Your task to perform on an android device: What's the weather going to be tomorrow? Image 0: 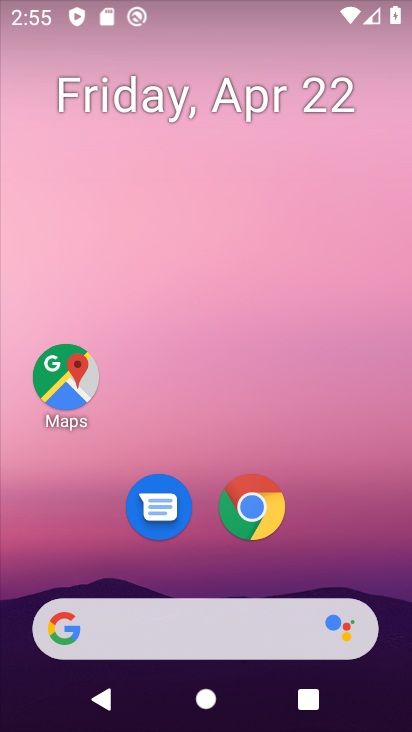
Step 0: click (277, 526)
Your task to perform on an android device: What's the weather going to be tomorrow? Image 1: 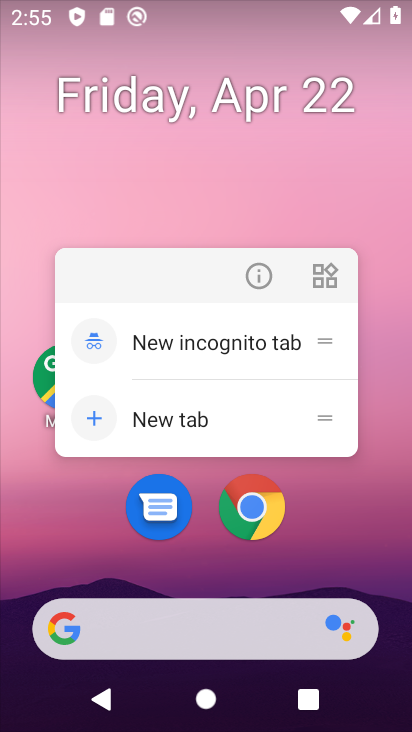
Step 1: click (252, 515)
Your task to perform on an android device: What's the weather going to be tomorrow? Image 2: 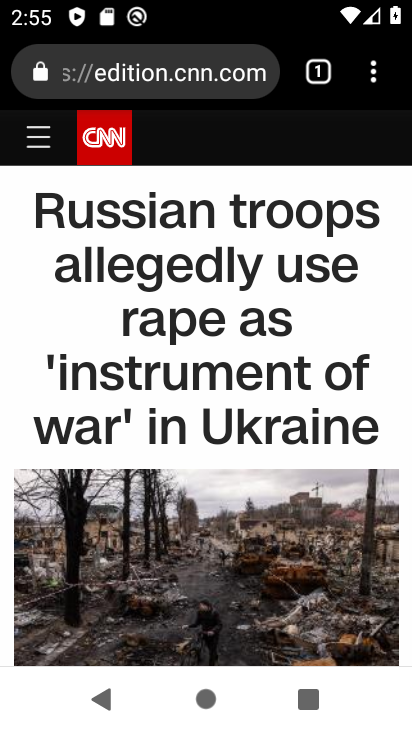
Step 2: click (133, 78)
Your task to perform on an android device: What's the weather going to be tomorrow? Image 3: 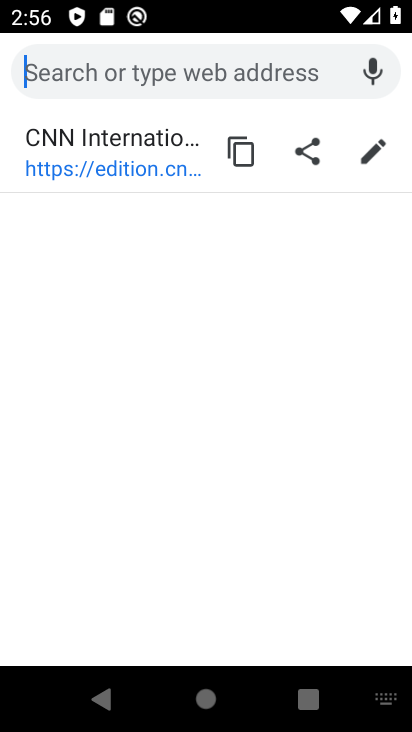
Step 3: type "whats the weather going to be tomorrow?"
Your task to perform on an android device: What's the weather going to be tomorrow? Image 4: 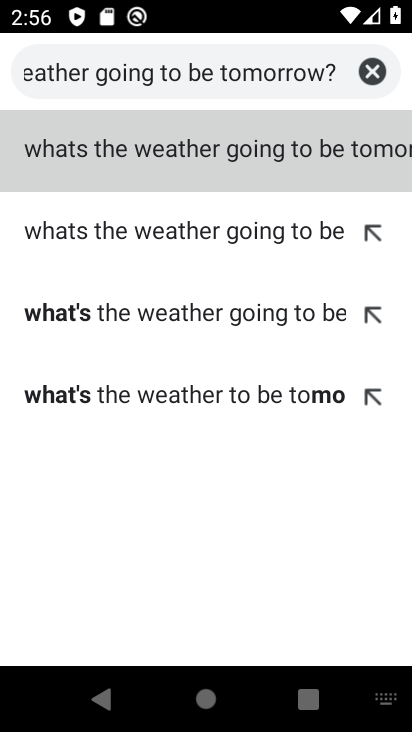
Step 4: click (256, 162)
Your task to perform on an android device: What's the weather going to be tomorrow? Image 5: 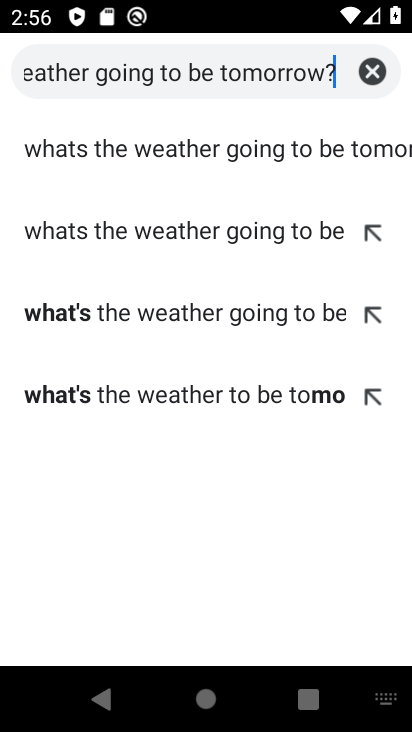
Step 5: click (259, 153)
Your task to perform on an android device: What's the weather going to be tomorrow? Image 6: 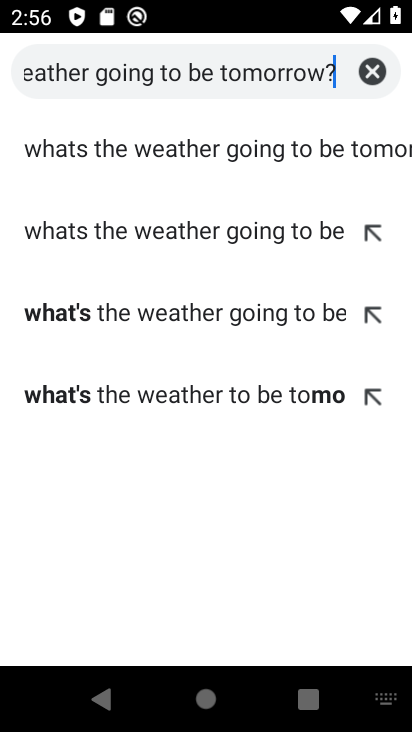
Step 6: click (259, 153)
Your task to perform on an android device: What's the weather going to be tomorrow? Image 7: 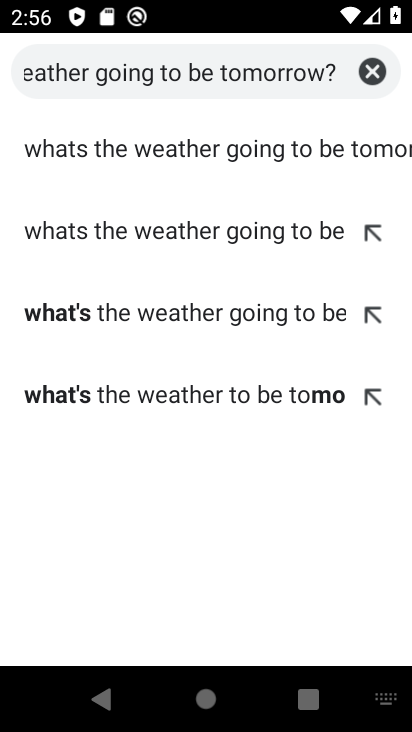
Step 7: click (252, 161)
Your task to perform on an android device: What's the weather going to be tomorrow? Image 8: 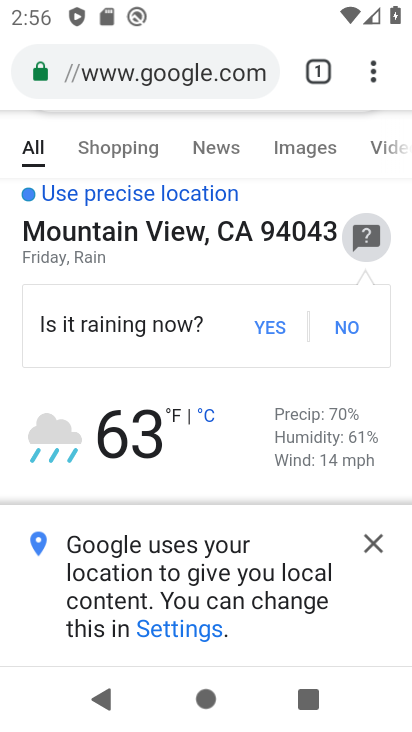
Step 8: task complete